Your task to perform on an android device: Open calendar and show me the second week of next month Image 0: 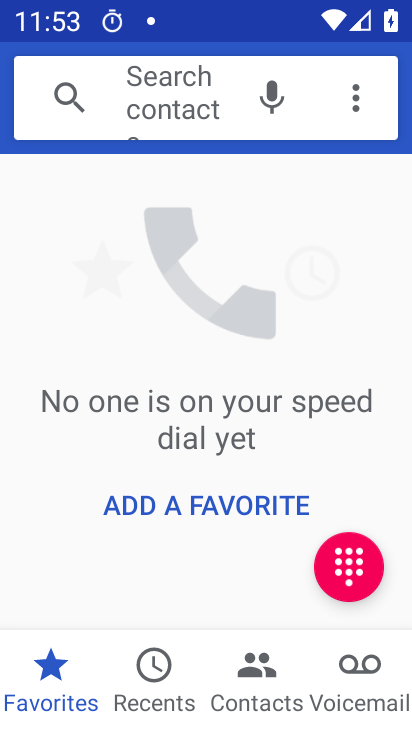
Step 0: press home button
Your task to perform on an android device: Open calendar and show me the second week of next month Image 1: 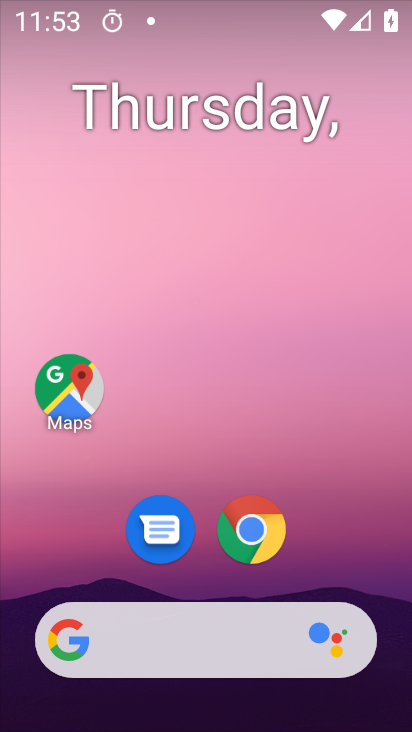
Step 1: drag from (200, 557) to (290, 28)
Your task to perform on an android device: Open calendar and show me the second week of next month Image 2: 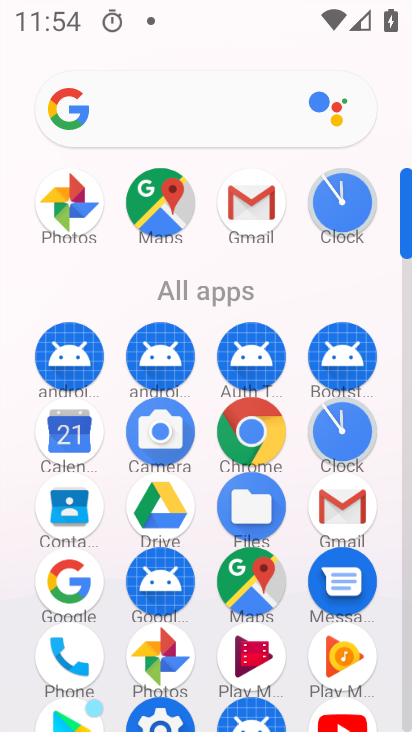
Step 2: click (82, 448)
Your task to perform on an android device: Open calendar and show me the second week of next month Image 3: 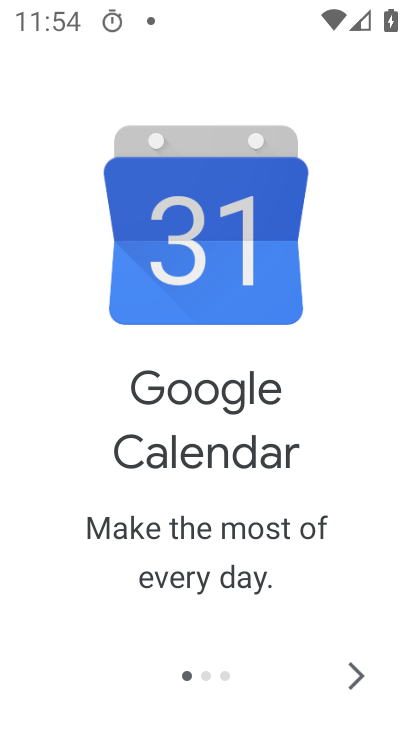
Step 3: click (355, 677)
Your task to perform on an android device: Open calendar and show me the second week of next month Image 4: 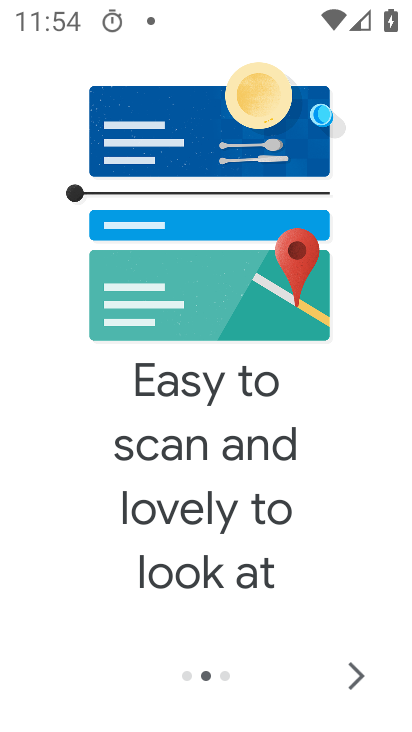
Step 4: click (360, 679)
Your task to perform on an android device: Open calendar and show me the second week of next month Image 5: 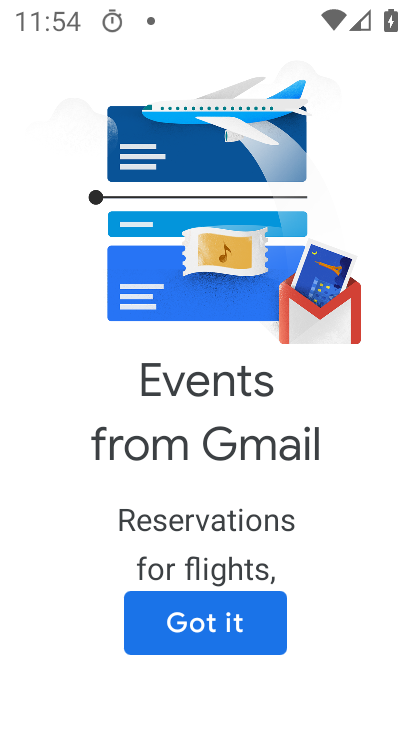
Step 5: click (256, 640)
Your task to perform on an android device: Open calendar and show me the second week of next month Image 6: 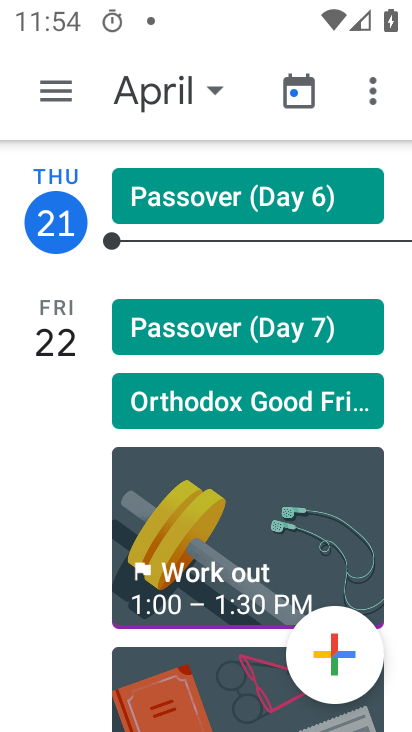
Step 6: click (65, 83)
Your task to perform on an android device: Open calendar and show me the second week of next month Image 7: 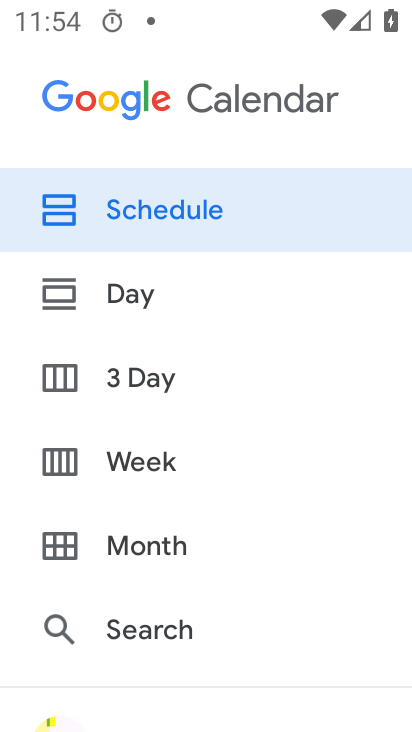
Step 7: click (152, 448)
Your task to perform on an android device: Open calendar and show me the second week of next month Image 8: 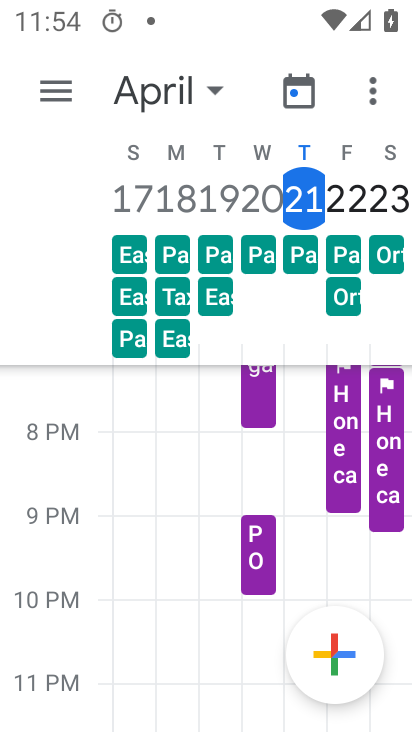
Step 8: task complete